Your task to perform on an android device: toggle javascript in the chrome app Image 0: 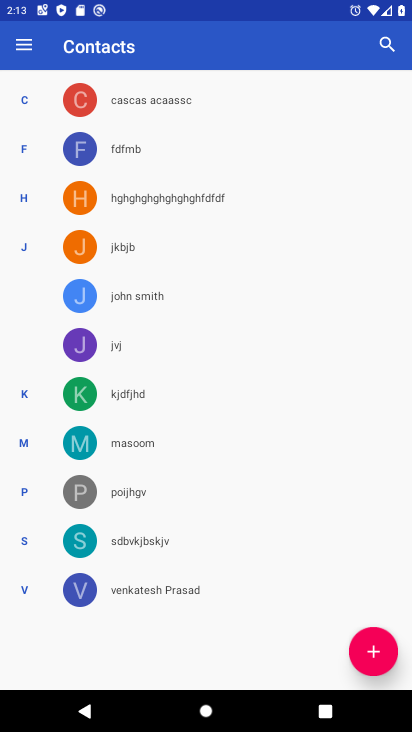
Step 0: press home button
Your task to perform on an android device: toggle javascript in the chrome app Image 1: 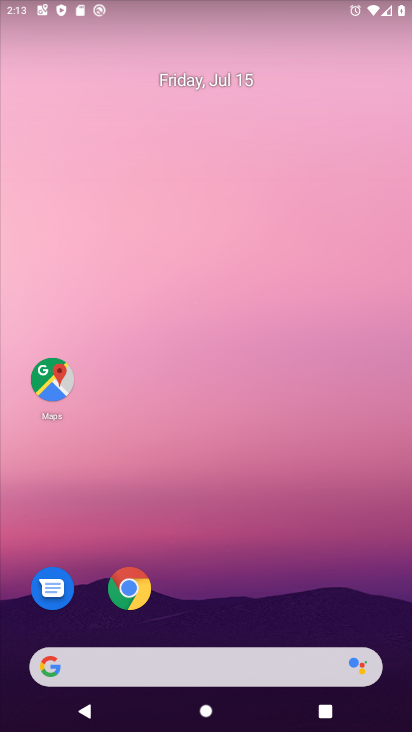
Step 1: click (132, 590)
Your task to perform on an android device: toggle javascript in the chrome app Image 2: 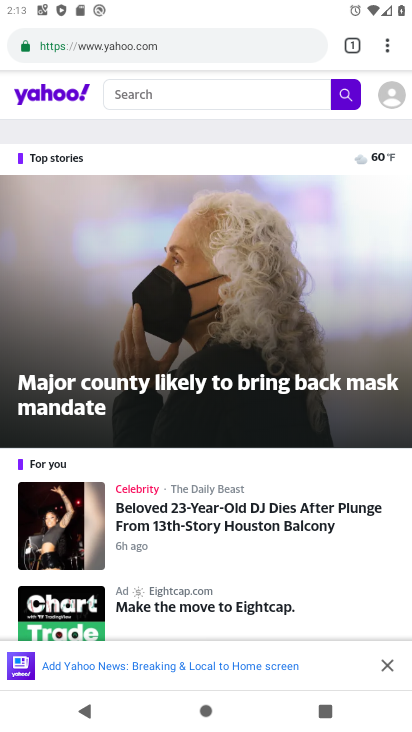
Step 2: click (390, 44)
Your task to perform on an android device: toggle javascript in the chrome app Image 3: 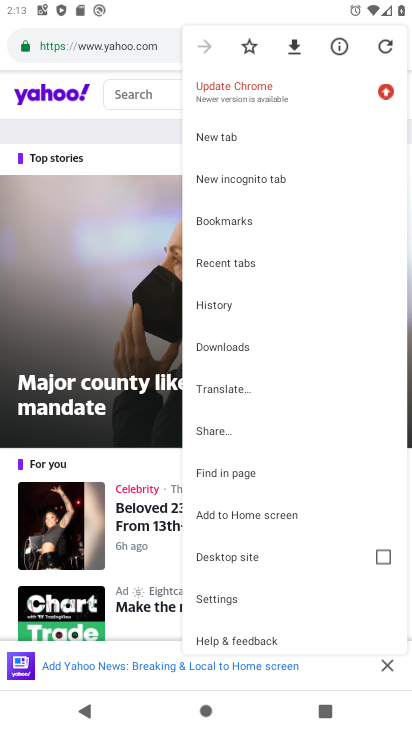
Step 3: click (232, 594)
Your task to perform on an android device: toggle javascript in the chrome app Image 4: 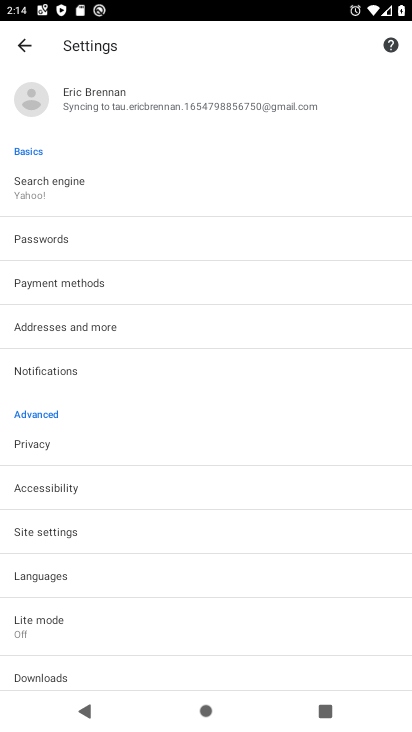
Step 4: click (69, 536)
Your task to perform on an android device: toggle javascript in the chrome app Image 5: 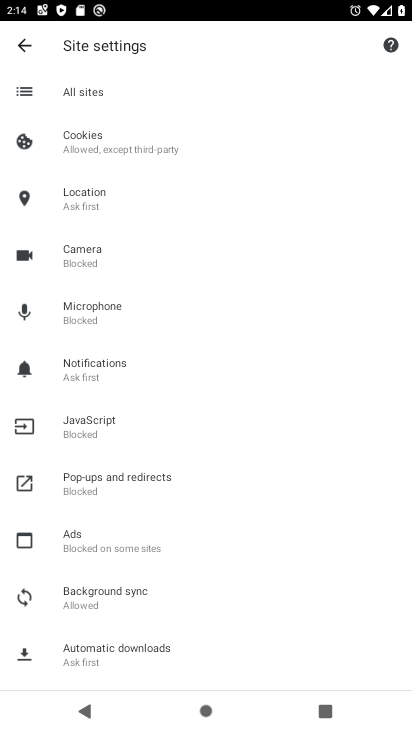
Step 5: click (92, 428)
Your task to perform on an android device: toggle javascript in the chrome app Image 6: 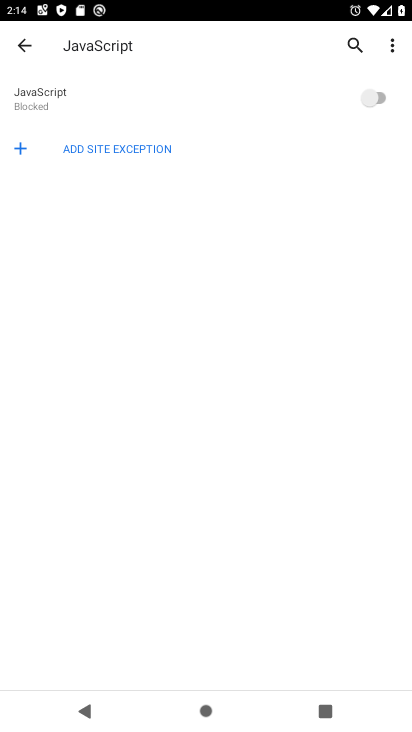
Step 6: click (376, 100)
Your task to perform on an android device: toggle javascript in the chrome app Image 7: 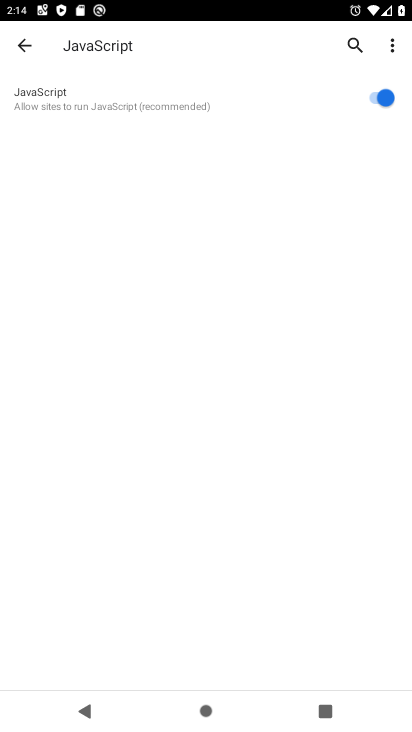
Step 7: task complete